Your task to perform on an android device: change text size in settings app Image 0: 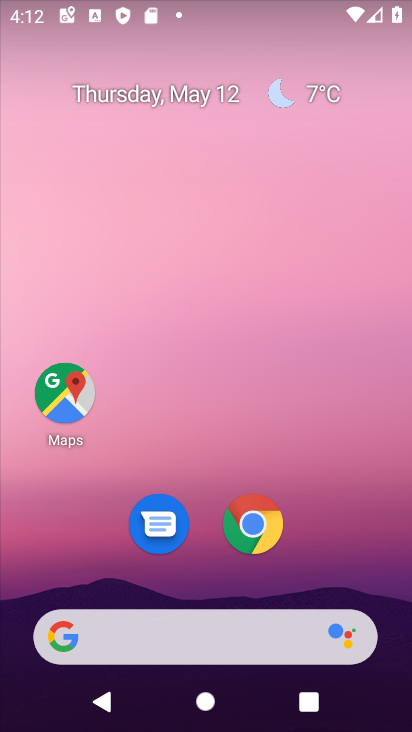
Step 0: drag from (207, 541) to (221, 93)
Your task to perform on an android device: change text size in settings app Image 1: 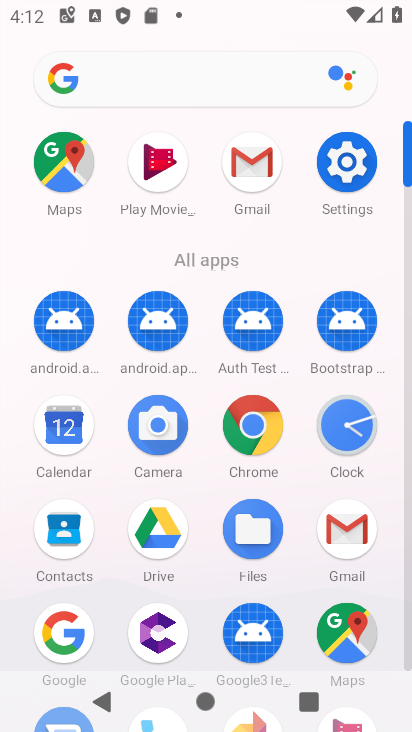
Step 1: click (334, 144)
Your task to perform on an android device: change text size in settings app Image 2: 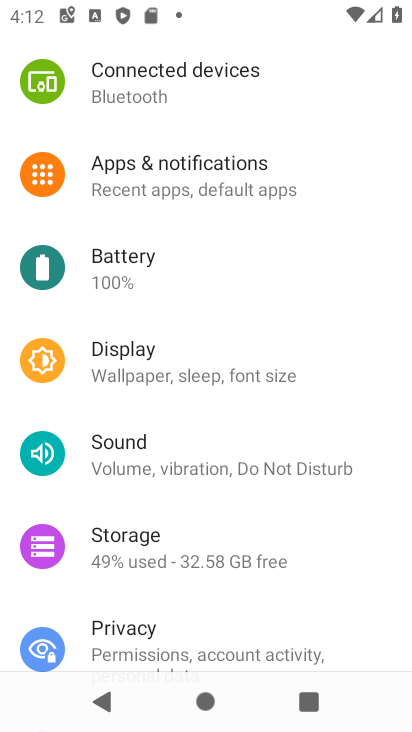
Step 2: click (254, 360)
Your task to perform on an android device: change text size in settings app Image 3: 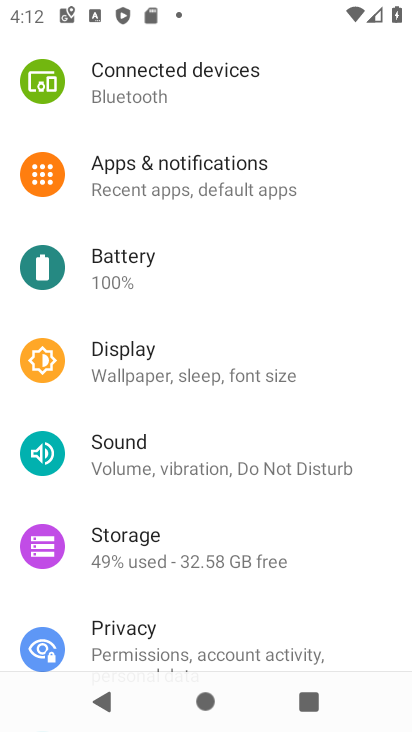
Step 3: click (131, 360)
Your task to perform on an android device: change text size in settings app Image 4: 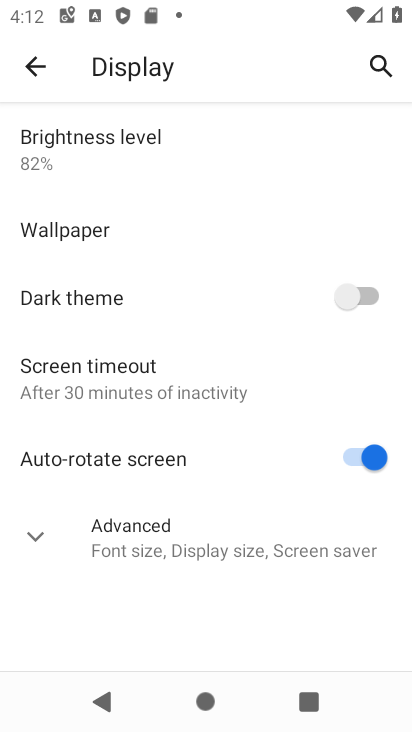
Step 4: click (26, 533)
Your task to perform on an android device: change text size in settings app Image 5: 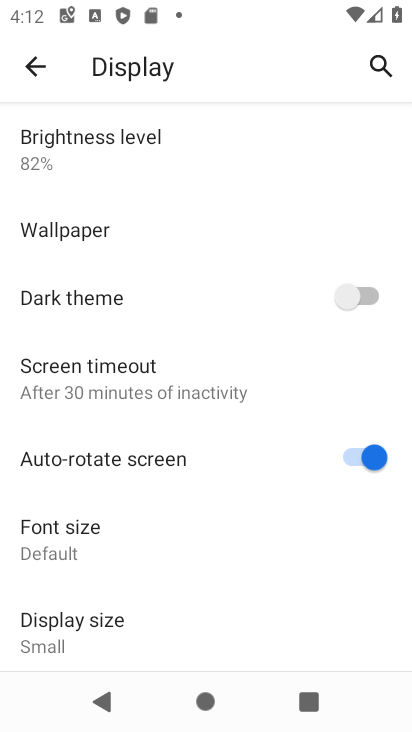
Step 5: click (111, 542)
Your task to perform on an android device: change text size in settings app Image 6: 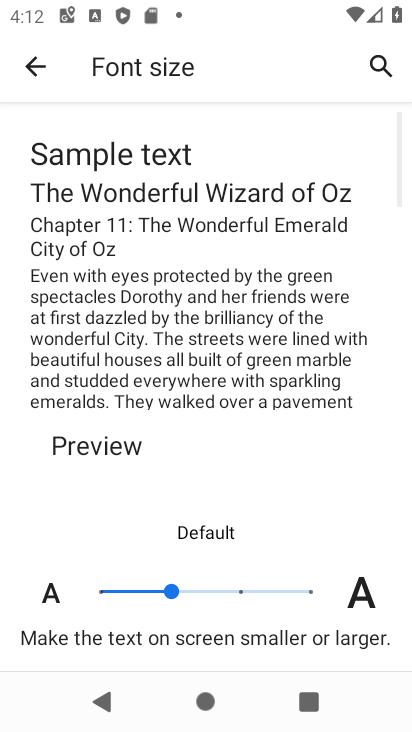
Step 6: click (109, 584)
Your task to perform on an android device: change text size in settings app Image 7: 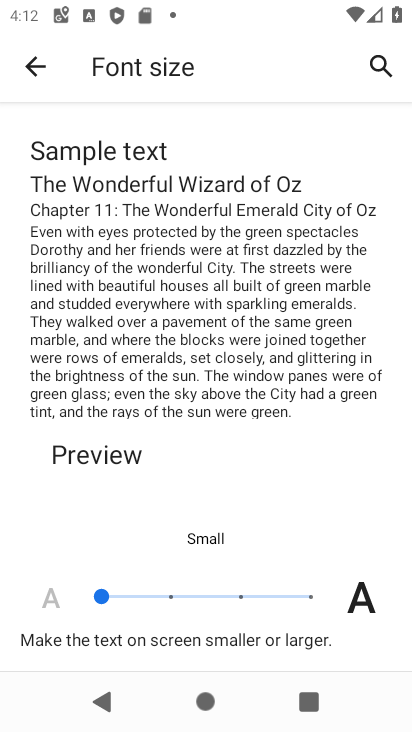
Step 7: click (42, 65)
Your task to perform on an android device: change text size in settings app Image 8: 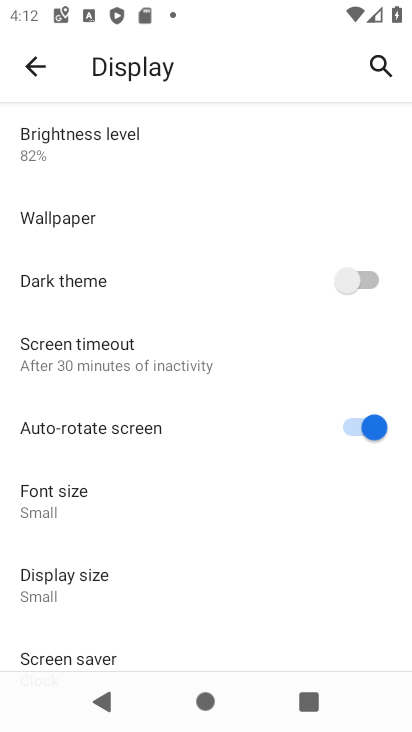
Step 8: task complete